Your task to perform on an android device: snooze an email in the gmail app Image 0: 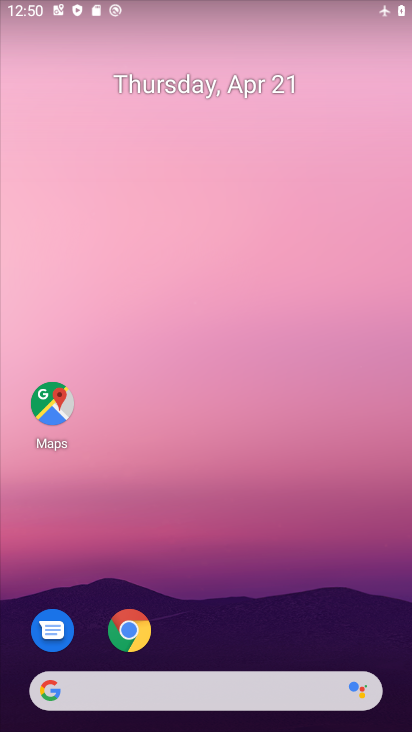
Step 0: drag from (241, 627) to (236, 174)
Your task to perform on an android device: snooze an email in the gmail app Image 1: 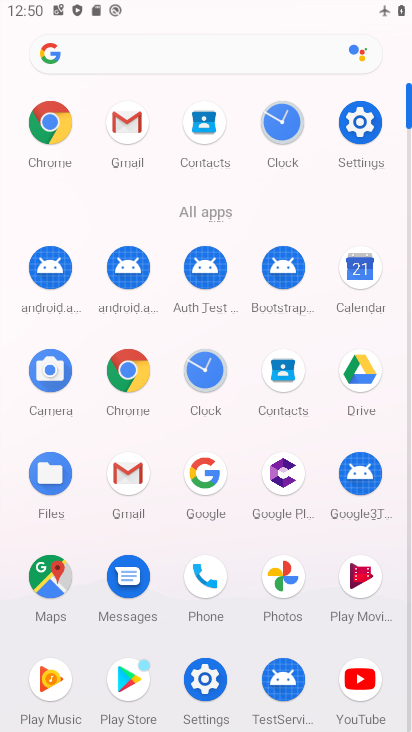
Step 1: click (54, 125)
Your task to perform on an android device: snooze an email in the gmail app Image 2: 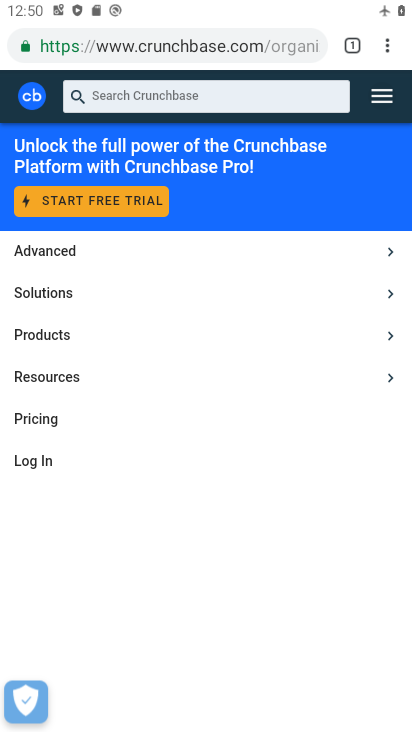
Step 2: press home button
Your task to perform on an android device: snooze an email in the gmail app Image 3: 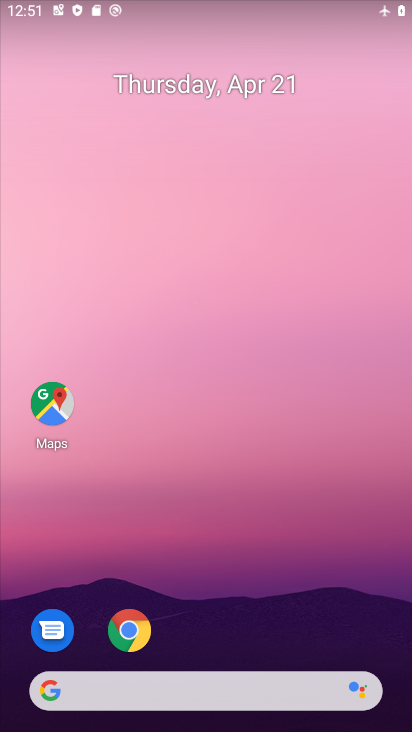
Step 3: drag from (338, 588) to (243, 200)
Your task to perform on an android device: snooze an email in the gmail app Image 4: 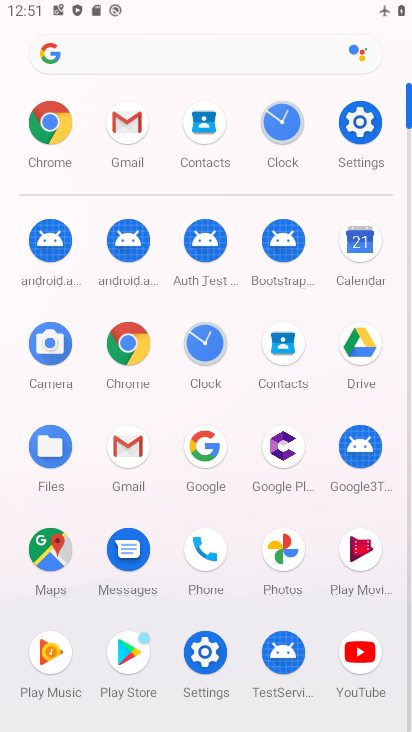
Step 4: click (131, 152)
Your task to perform on an android device: snooze an email in the gmail app Image 5: 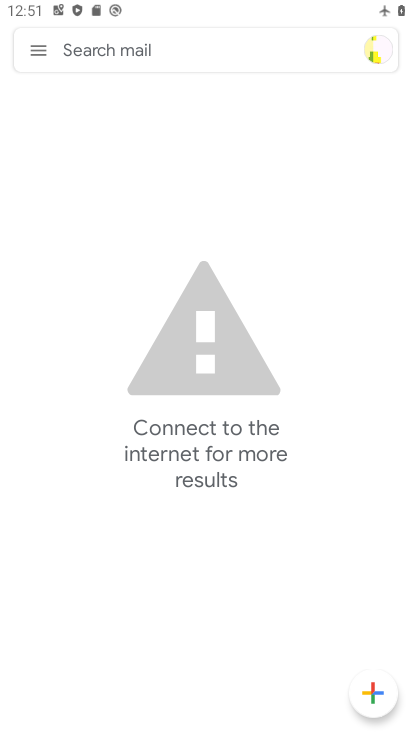
Step 5: task complete